Your task to perform on an android device: turn smart compose on in the gmail app Image 0: 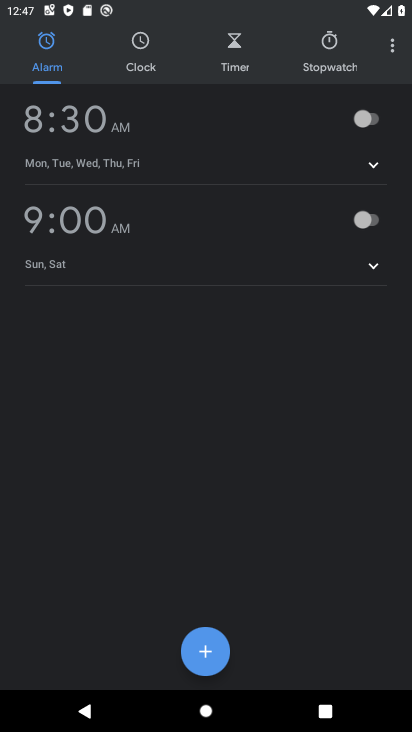
Step 0: press home button
Your task to perform on an android device: turn smart compose on in the gmail app Image 1: 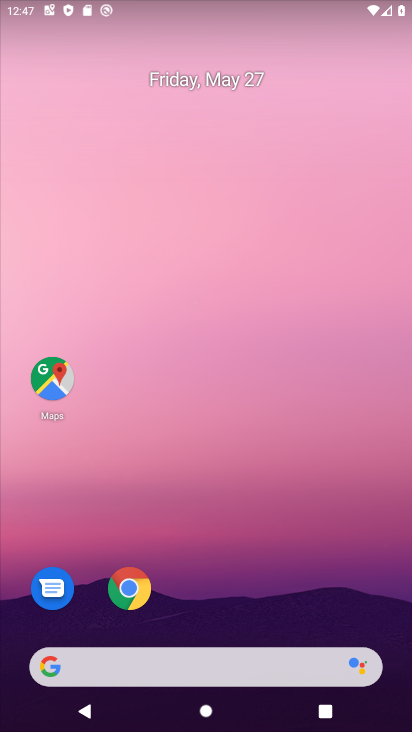
Step 1: drag from (223, 614) to (155, 6)
Your task to perform on an android device: turn smart compose on in the gmail app Image 2: 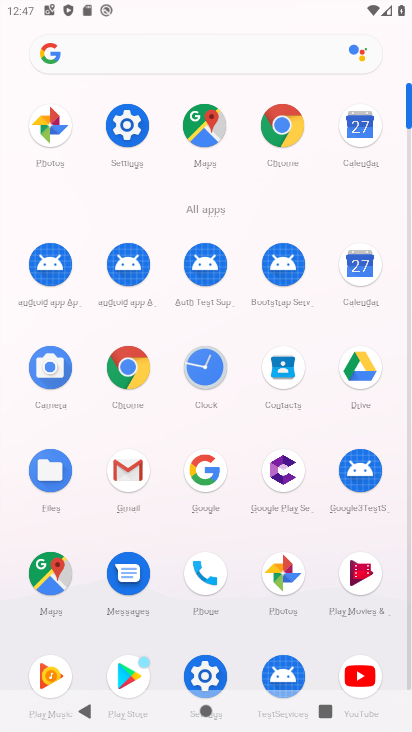
Step 2: click (128, 466)
Your task to perform on an android device: turn smart compose on in the gmail app Image 3: 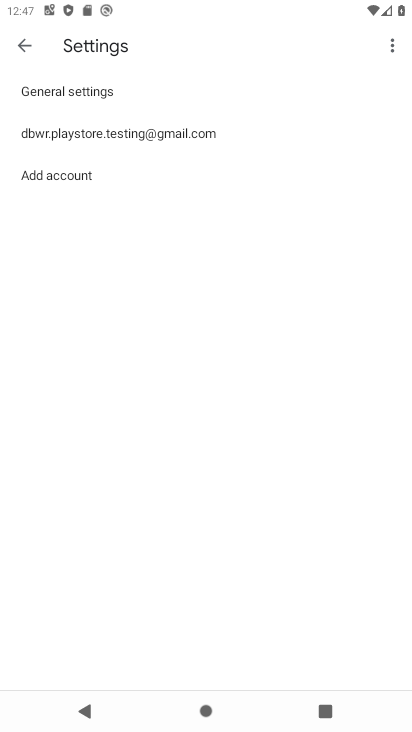
Step 3: click (95, 123)
Your task to perform on an android device: turn smart compose on in the gmail app Image 4: 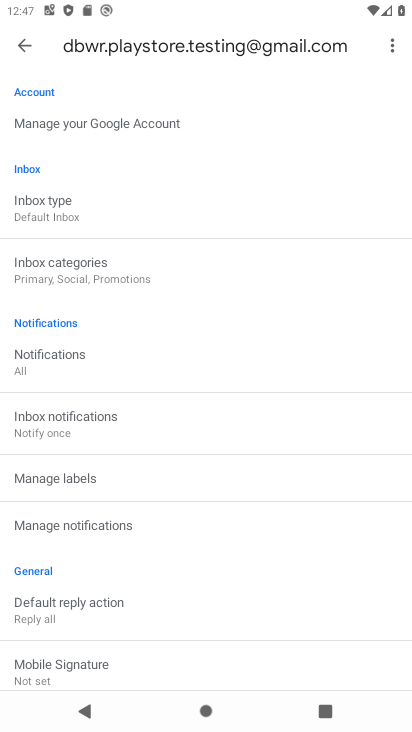
Step 4: task complete